Your task to perform on an android device: open a bookmark in the chrome app Image 0: 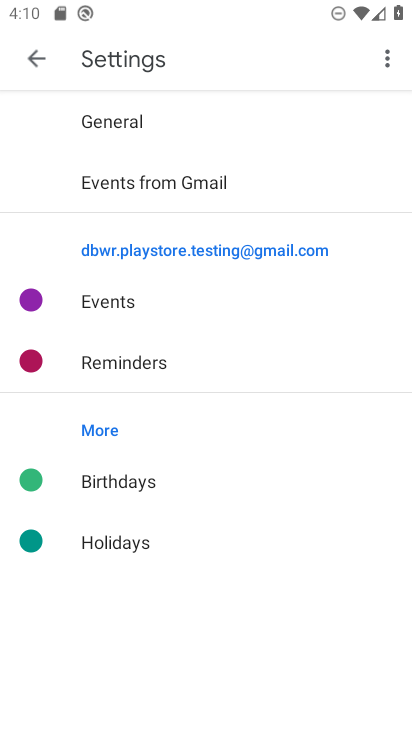
Step 0: press home button
Your task to perform on an android device: open a bookmark in the chrome app Image 1: 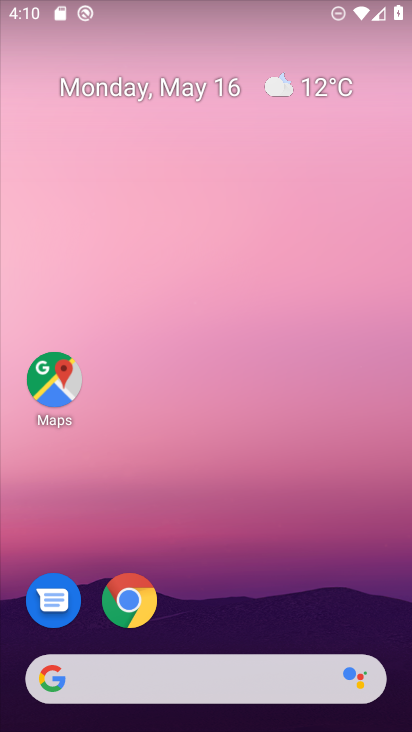
Step 1: click (126, 604)
Your task to perform on an android device: open a bookmark in the chrome app Image 2: 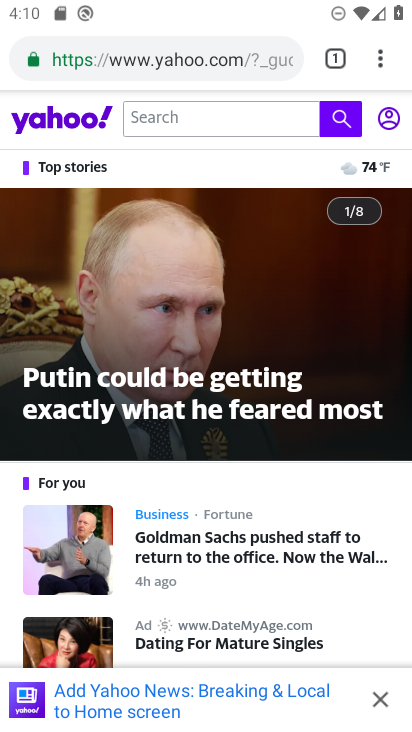
Step 2: task complete